Your task to perform on an android device: Show me popular games on the Play Store Image 0: 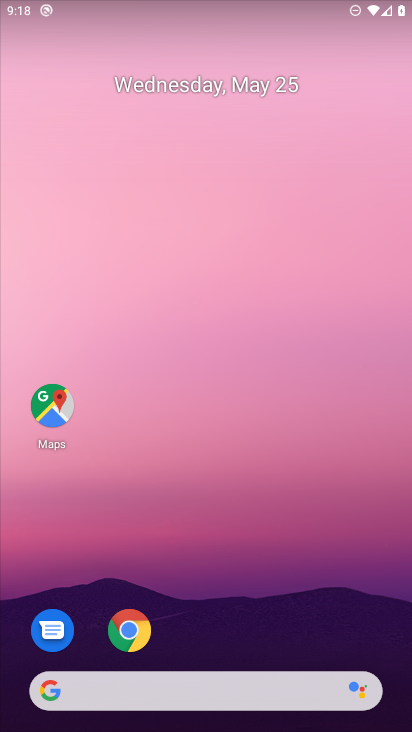
Step 0: drag from (221, 669) to (278, 274)
Your task to perform on an android device: Show me popular games on the Play Store Image 1: 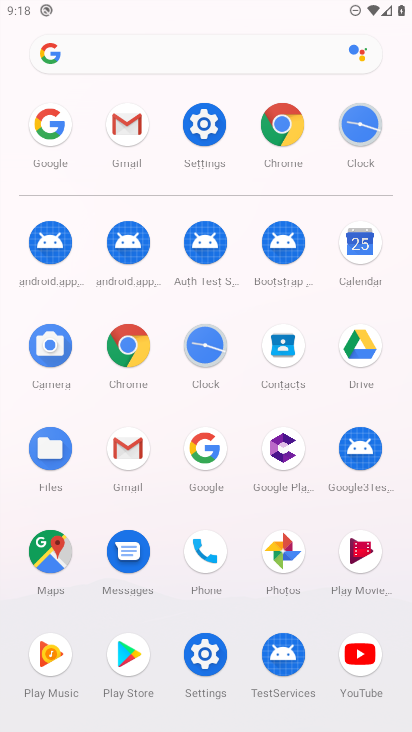
Step 1: click (119, 658)
Your task to perform on an android device: Show me popular games on the Play Store Image 2: 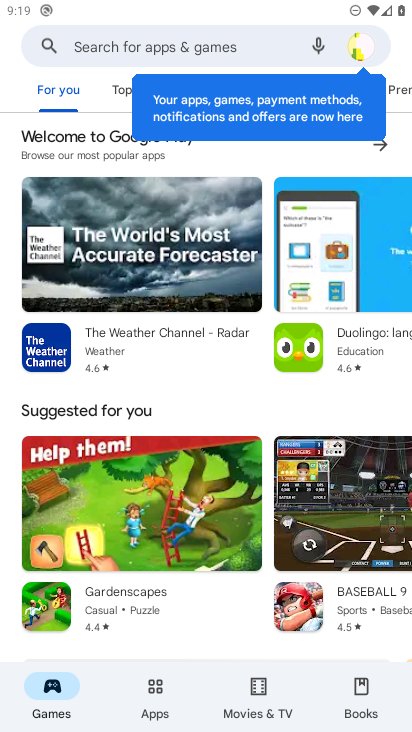
Step 2: type "popular games"
Your task to perform on an android device: Show me popular games on the Play Store Image 3: 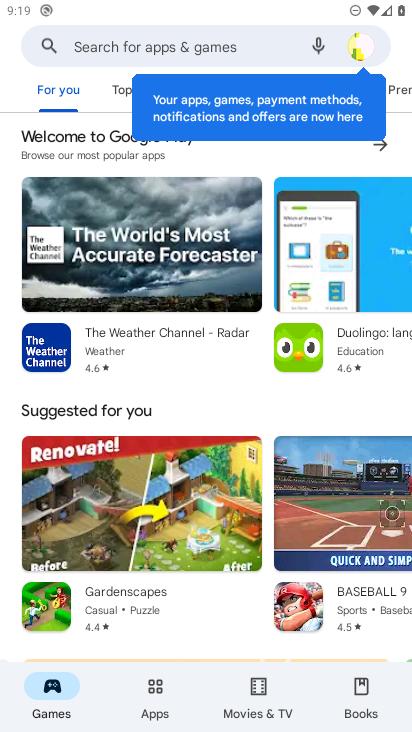
Step 3: click (114, 51)
Your task to perform on an android device: Show me popular games on the Play Store Image 4: 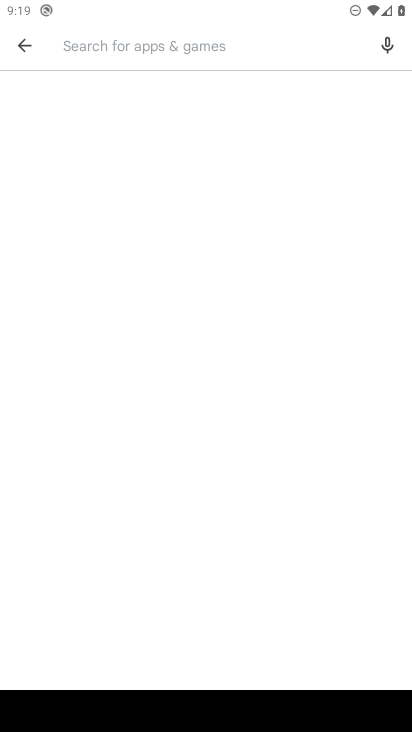
Step 4: type "popular games"
Your task to perform on an android device: Show me popular games on the Play Store Image 5: 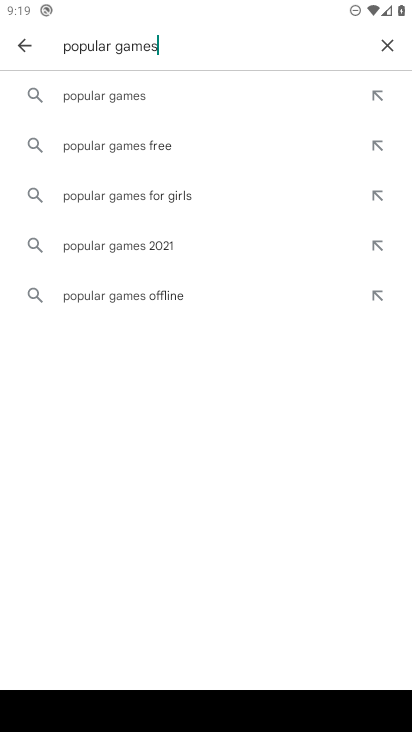
Step 5: click (113, 97)
Your task to perform on an android device: Show me popular games on the Play Store Image 6: 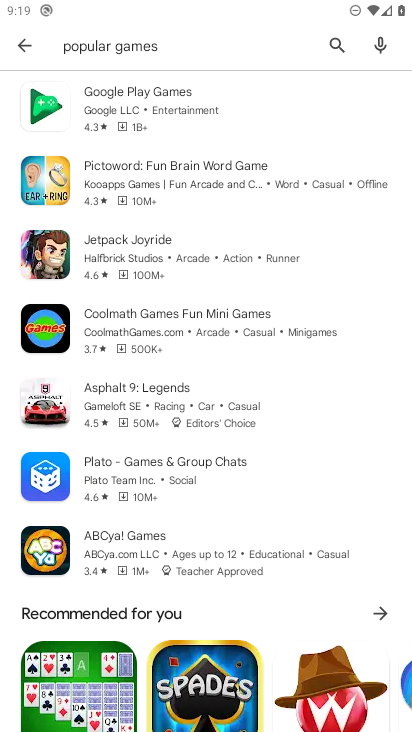
Step 6: task complete